Your task to perform on an android device: Open accessibility settings Image 0: 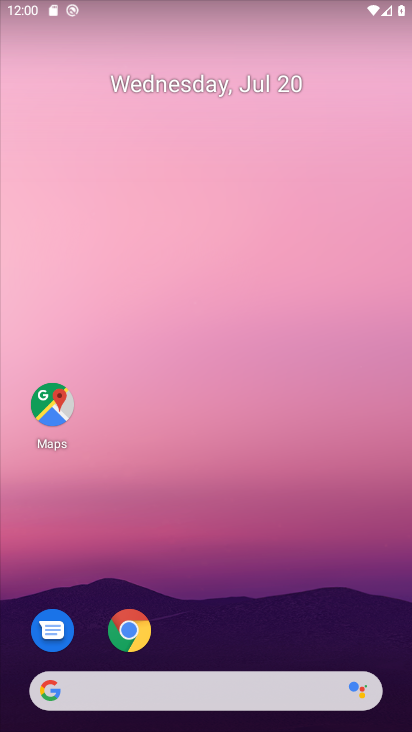
Step 0: drag from (153, 688) to (332, 48)
Your task to perform on an android device: Open accessibility settings Image 1: 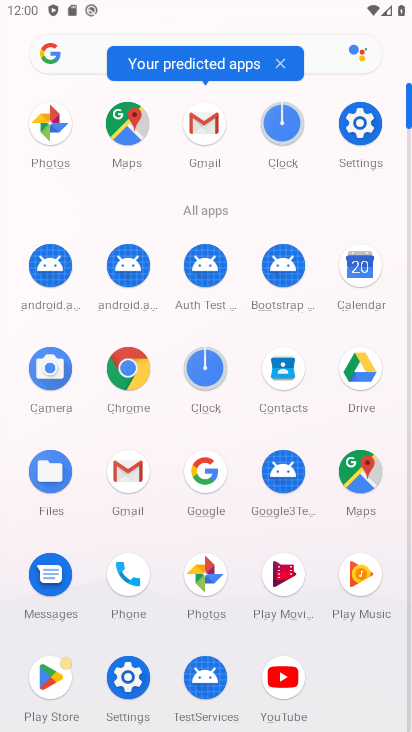
Step 1: click (356, 128)
Your task to perform on an android device: Open accessibility settings Image 2: 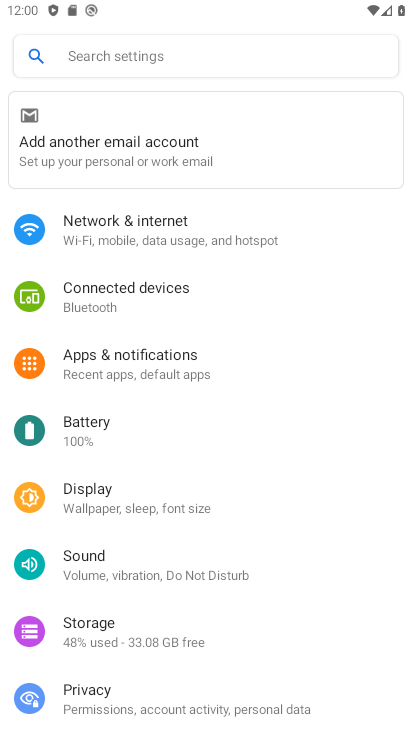
Step 2: drag from (193, 679) to (372, 82)
Your task to perform on an android device: Open accessibility settings Image 3: 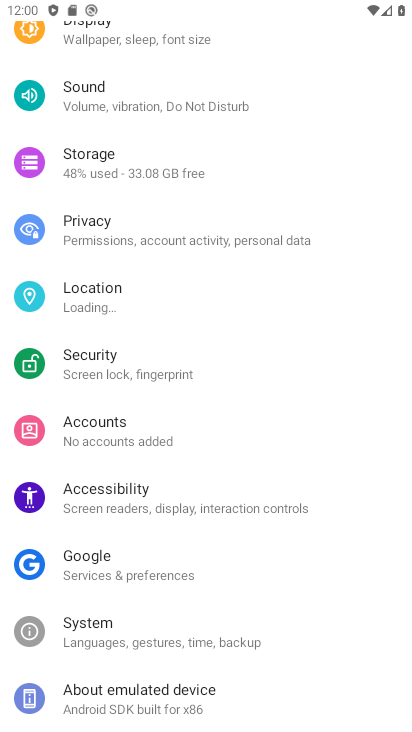
Step 3: click (98, 500)
Your task to perform on an android device: Open accessibility settings Image 4: 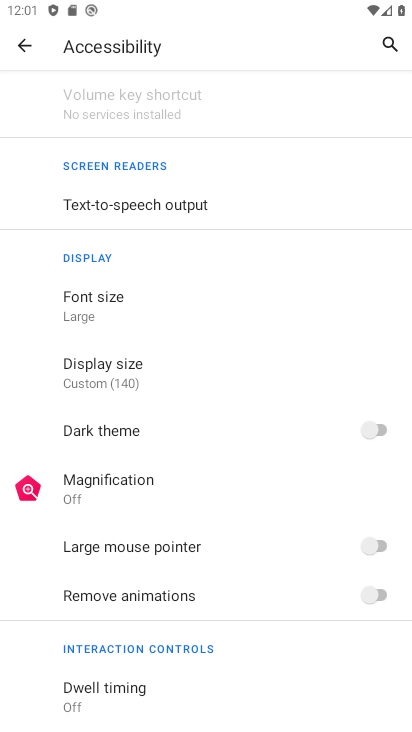
Step 4: task complete